Your task to perform on an android device: Turn on the flashlight Image 0: 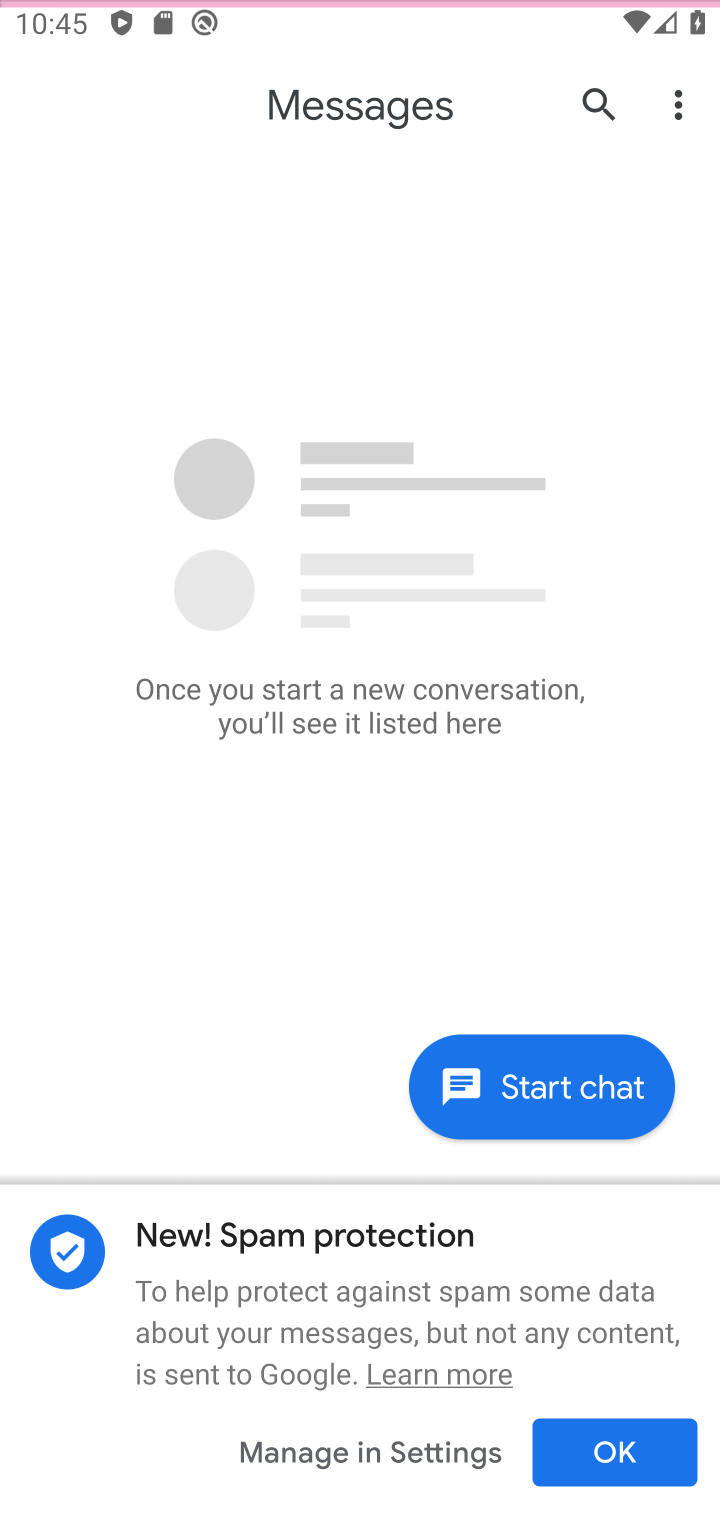
Step 0: press home button
Your task to perform on an android device: Turn on the flashlight Image 1: 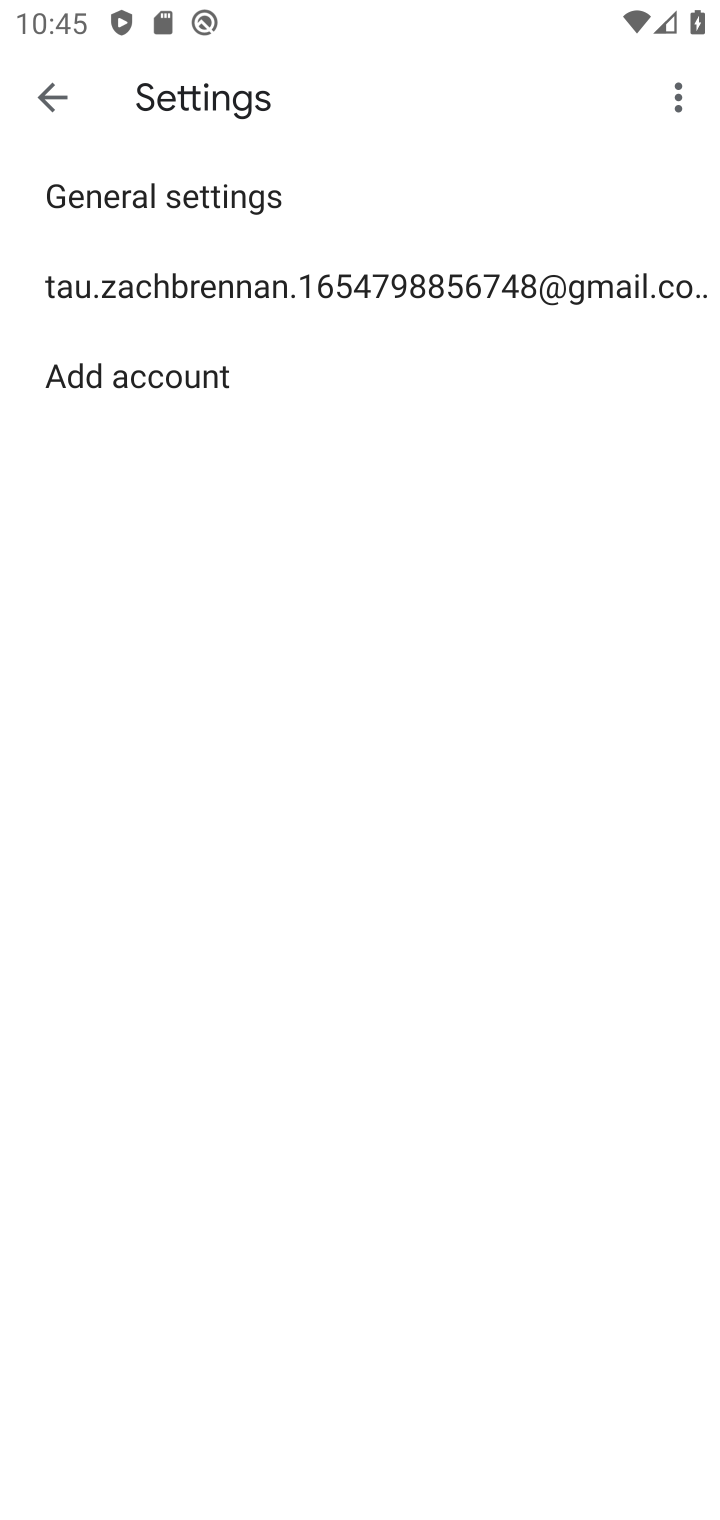
Step 1: task complete